Your task to perform on an android device: install app "Adobe Acrobat Reader: Edit PDF" Image 0: 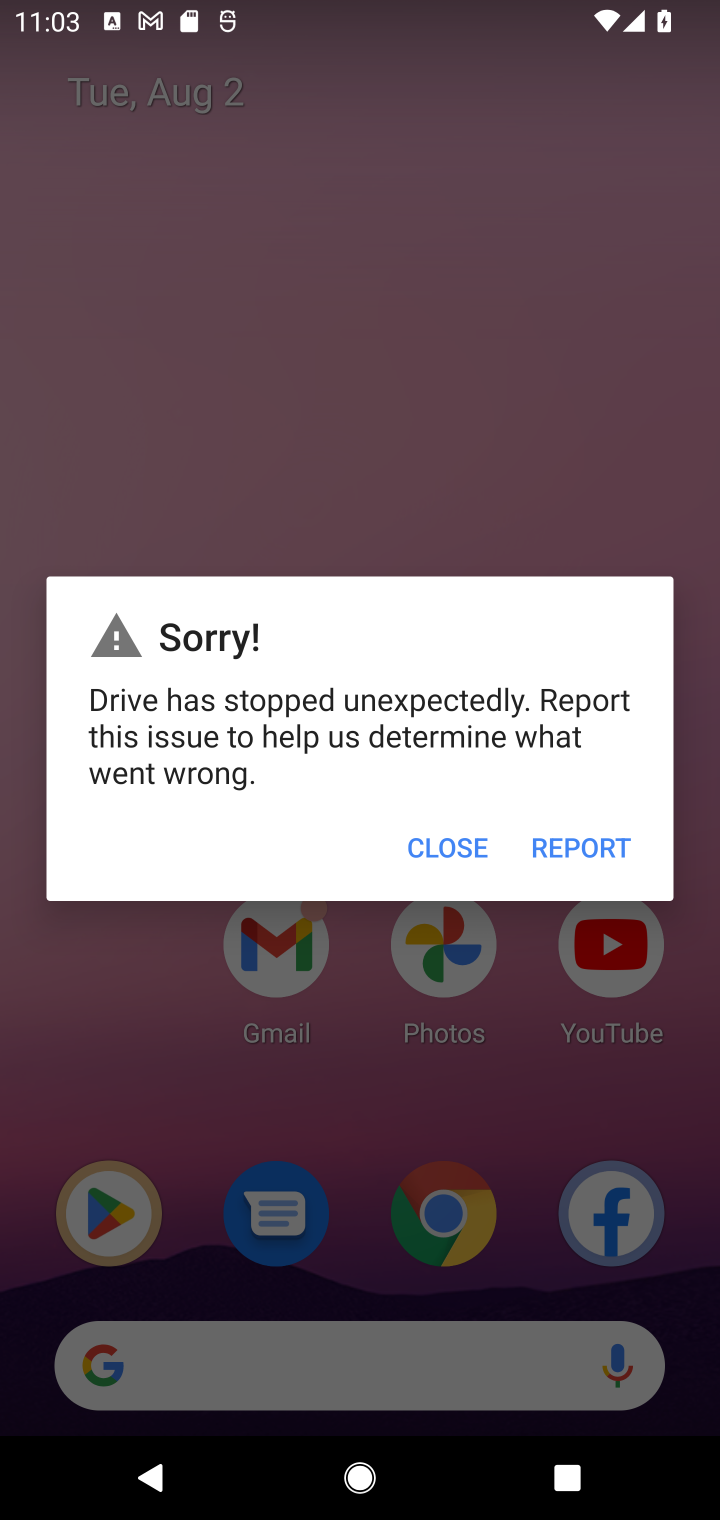
Step 0: press home button
Your task to perform on an android device: install app "Adobe Acrobat Reader: Edit PDF" Image 1: 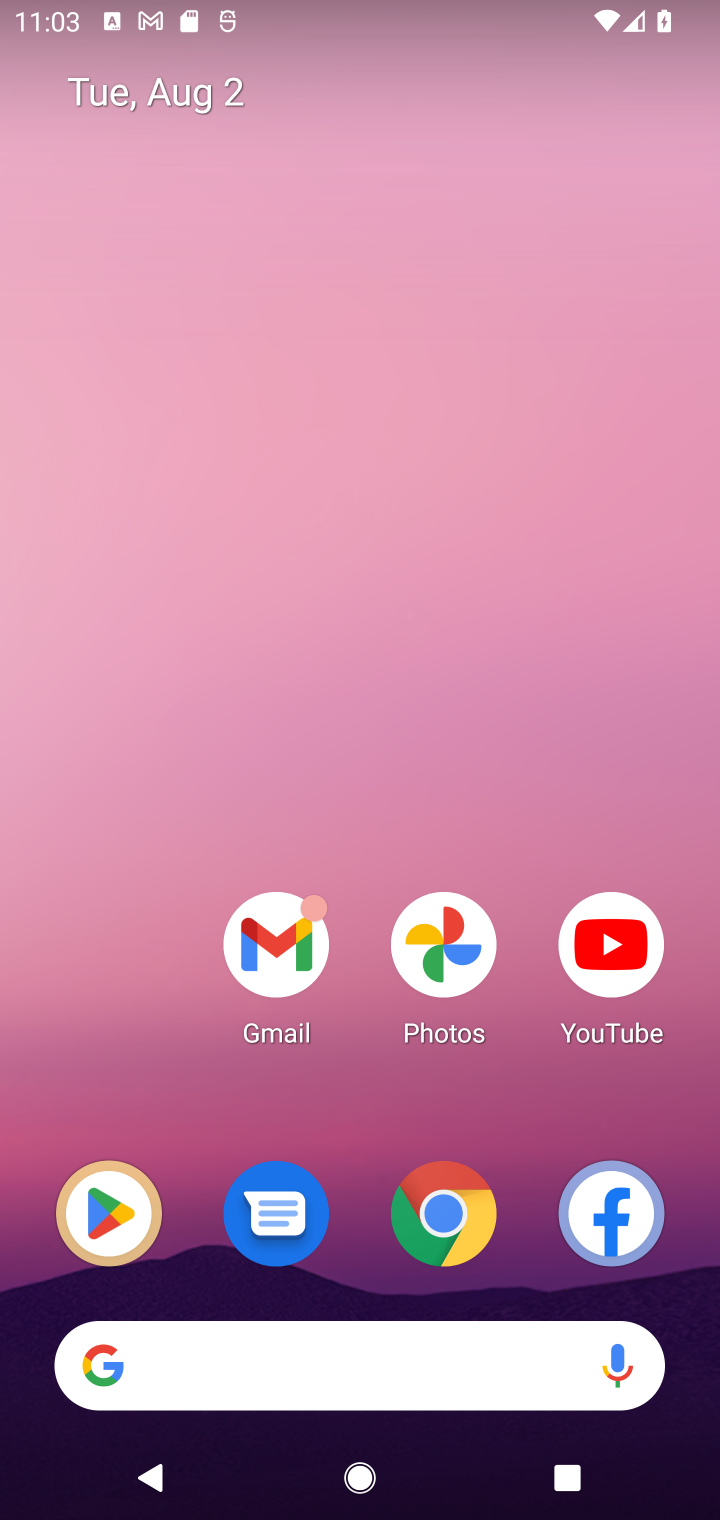
Step 1: click (427, 1151)
Your task to perform on an android device: install app "Adobe Acrobat Reader: Edit PDF" Image 2: 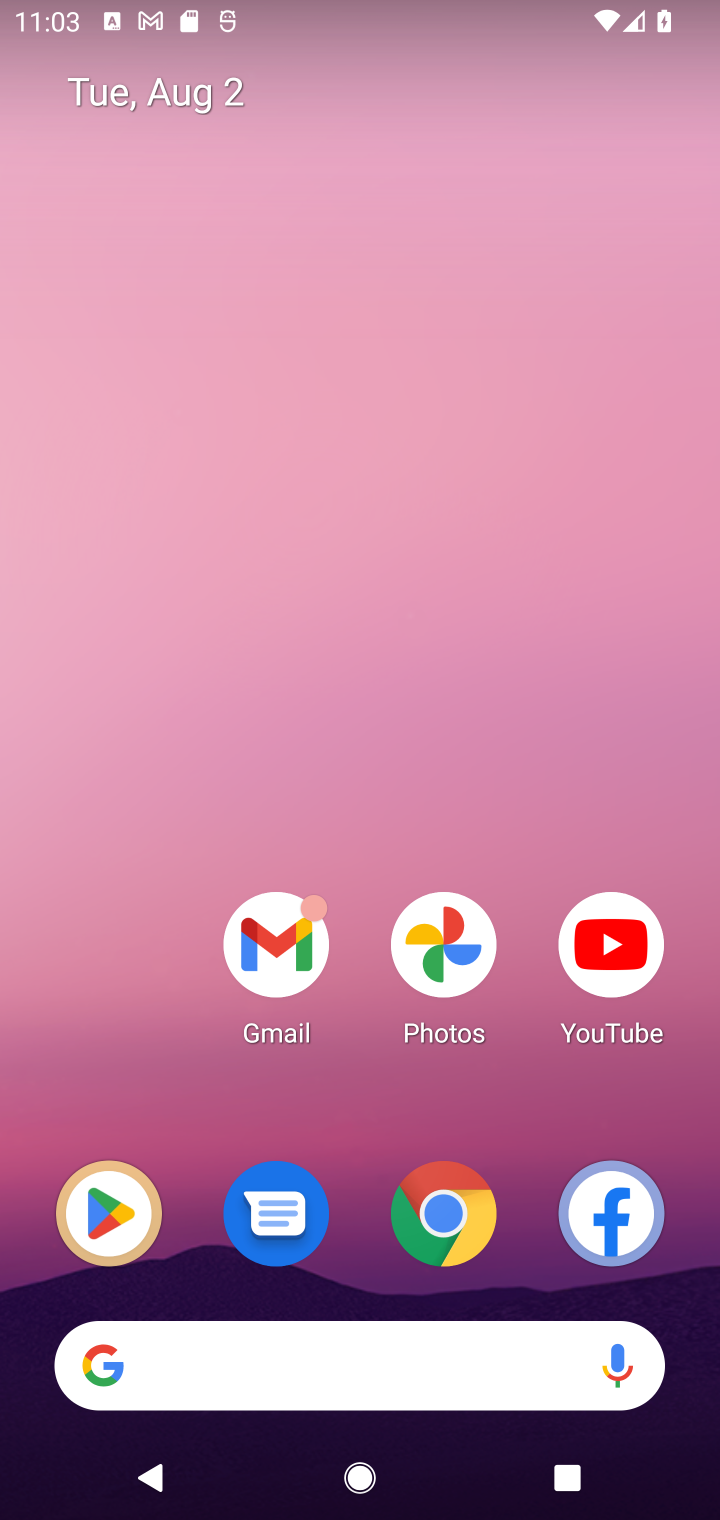
Step 2: click (104, 1216)
Your task to perform on an android device: install app "Adobe Acrobat Reader: Edit PDF" Image 3: 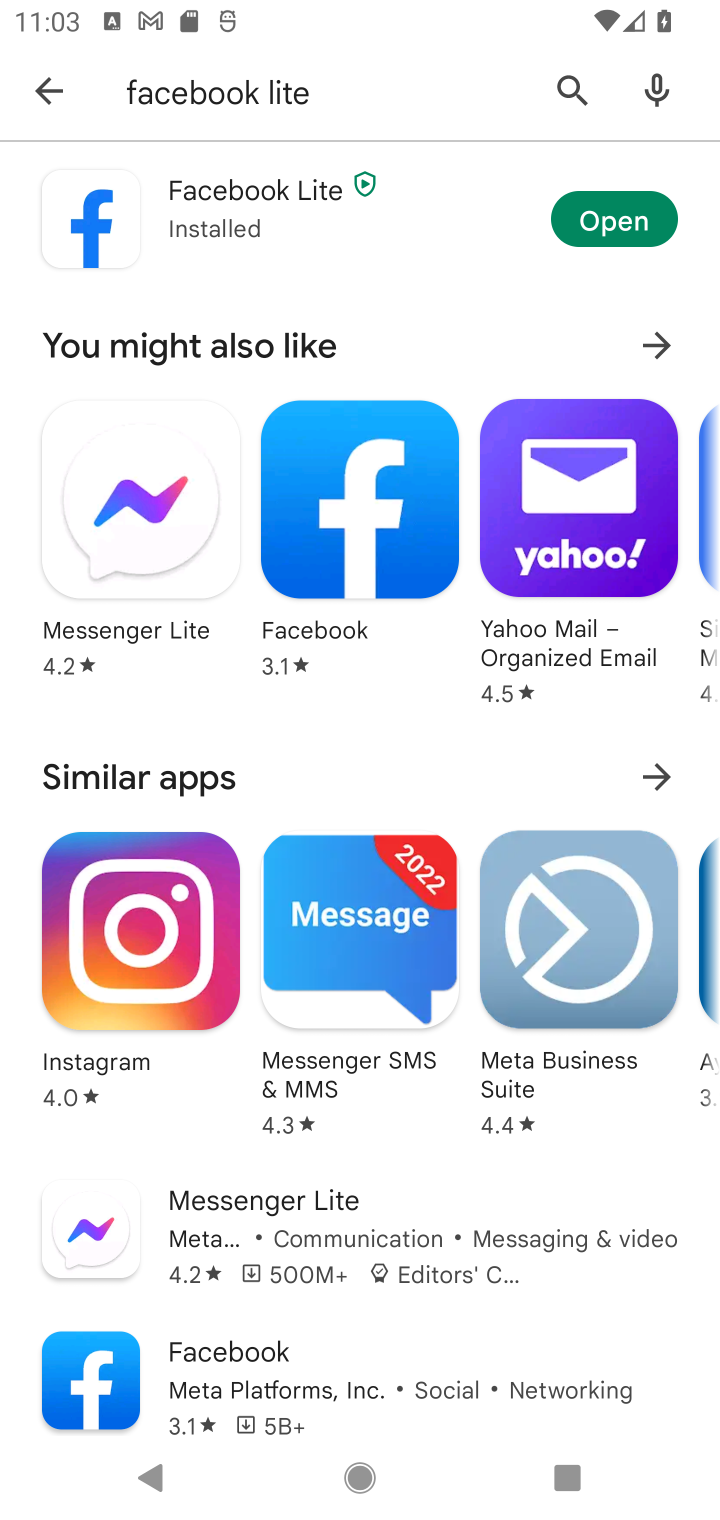
Step 3: click (46, 93)
Your task to perform on an android device: install app "Adobe Acrobat Reader: Edit PDF" Image 4: 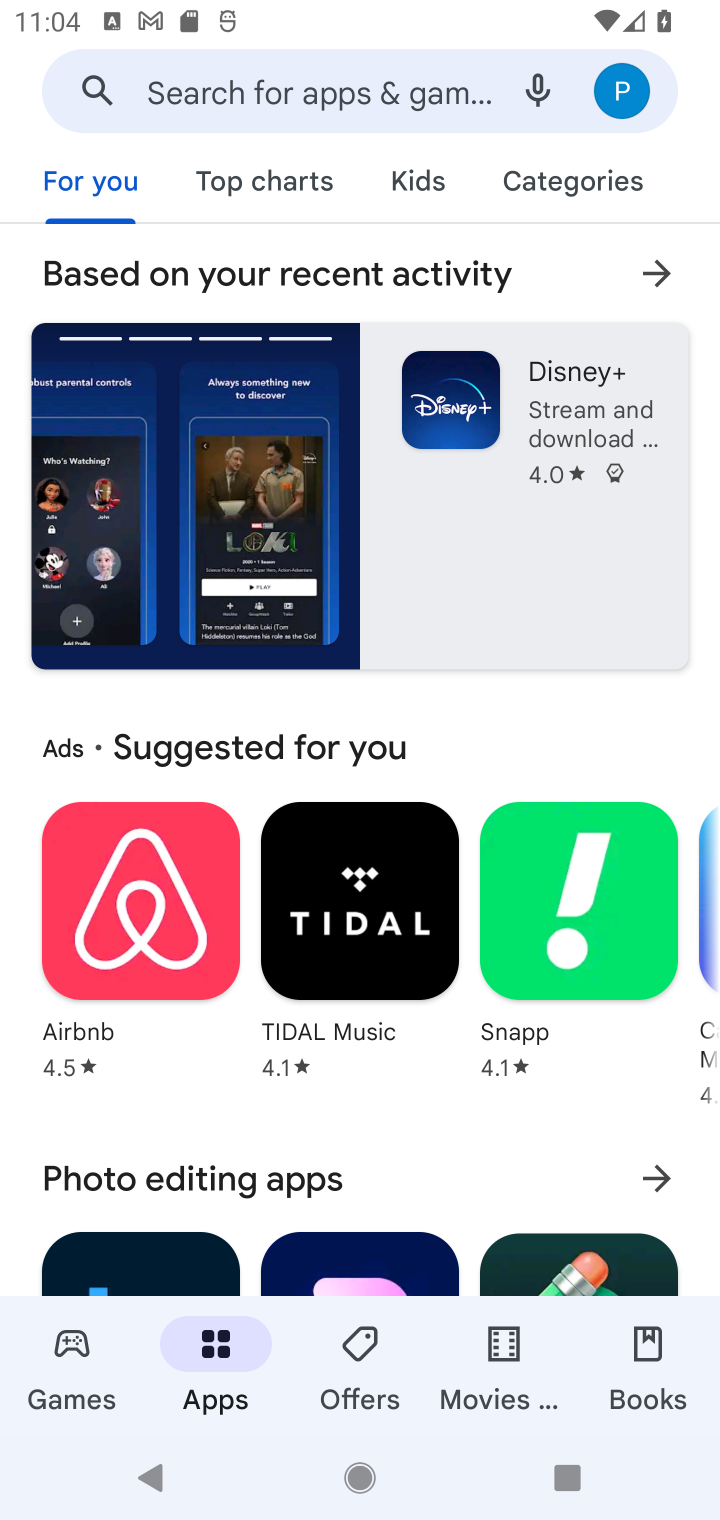
Step 4: click (271, 112)
Your task to perform on an android device: install app "Adobe Acrobat Reader: Edit PDF" Image 5: 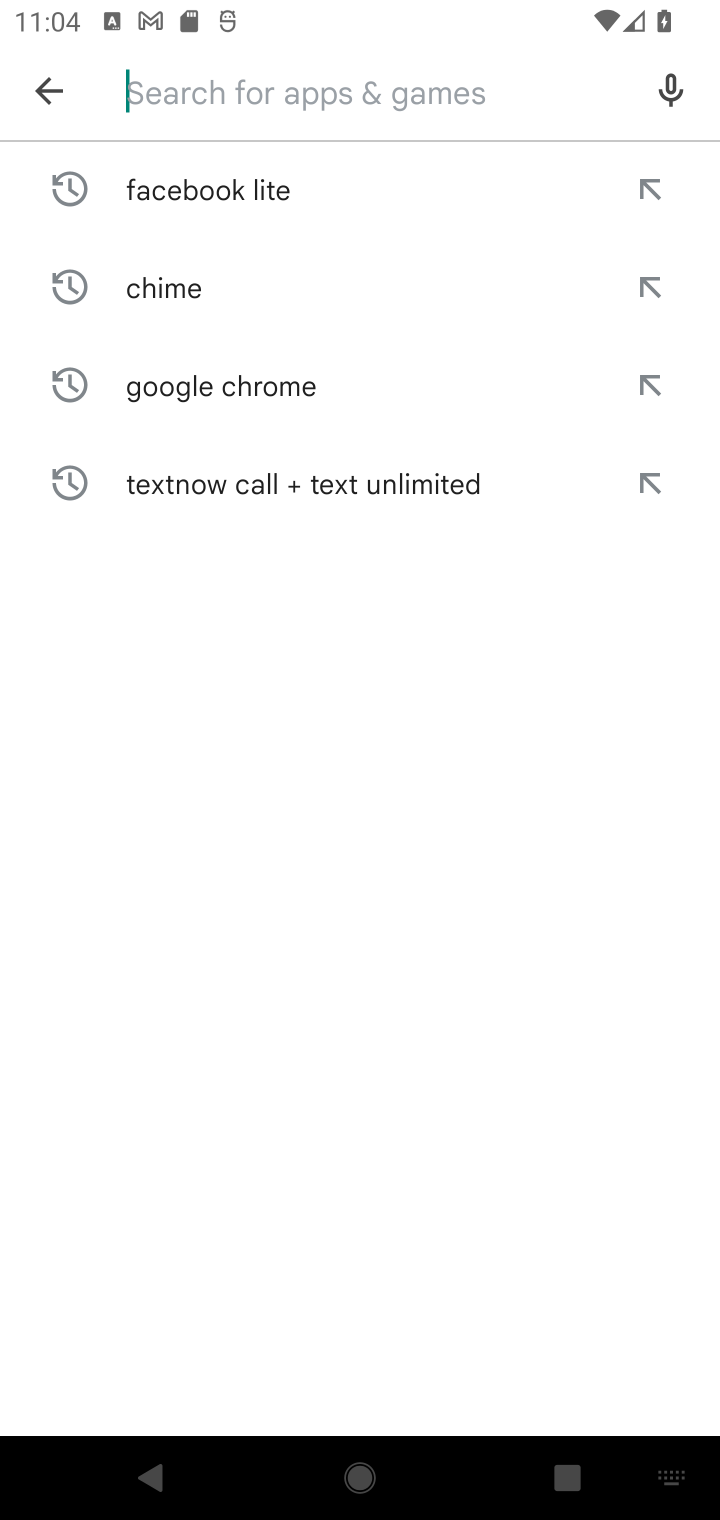
Step 5: type "Adobe Acrobat Reader: Edit PDF"
Your task to perform on an android device: install app "Adobe Acrobat Reader: Edit PDF" Image 6: 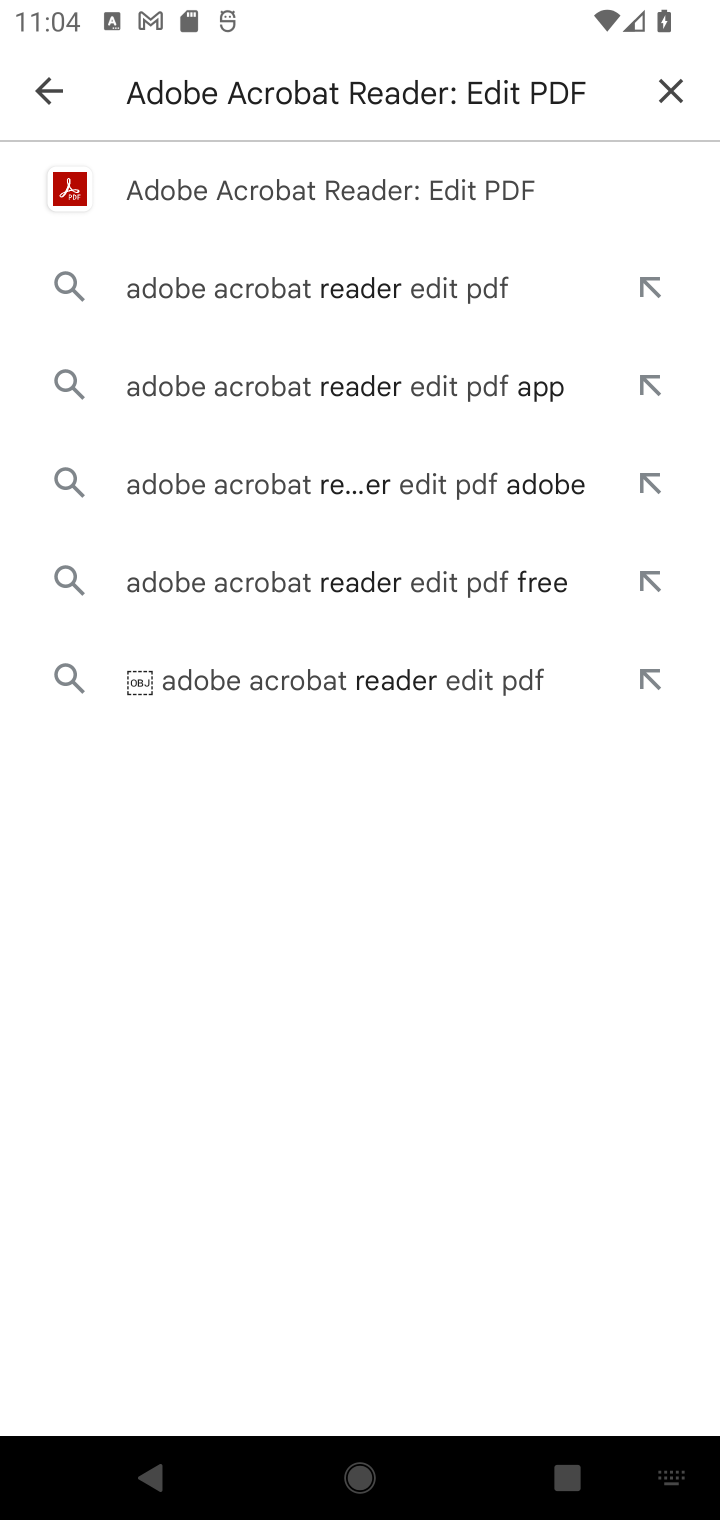
Step 6: click (280, 197)
Your task to perform on an android device: install app "Adobe Acrobat Reader: Edit PDF" Image 7: 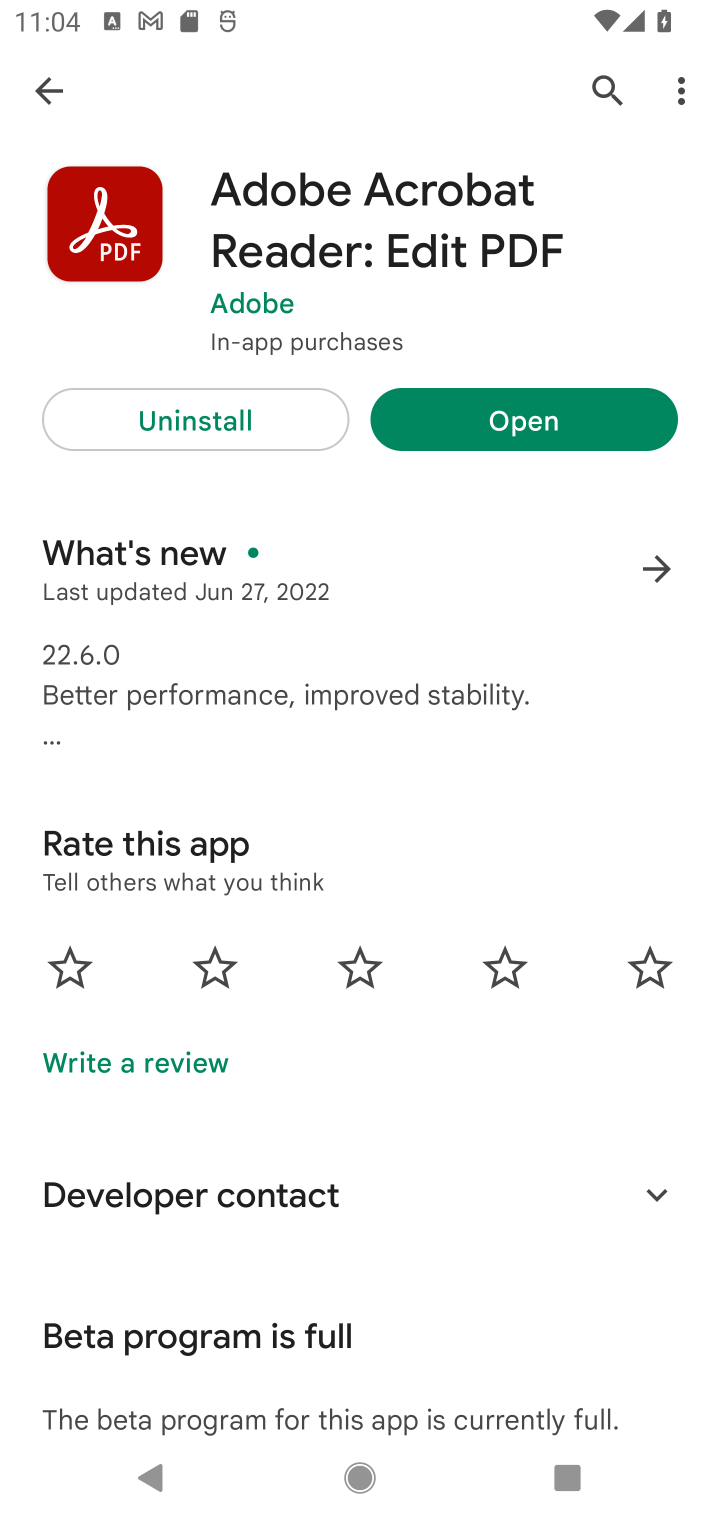
Step 7: click (489, 419)
Your task to perform on an android device: install app "Adobe Acrobat Reader: Edit PDF" Image 8: 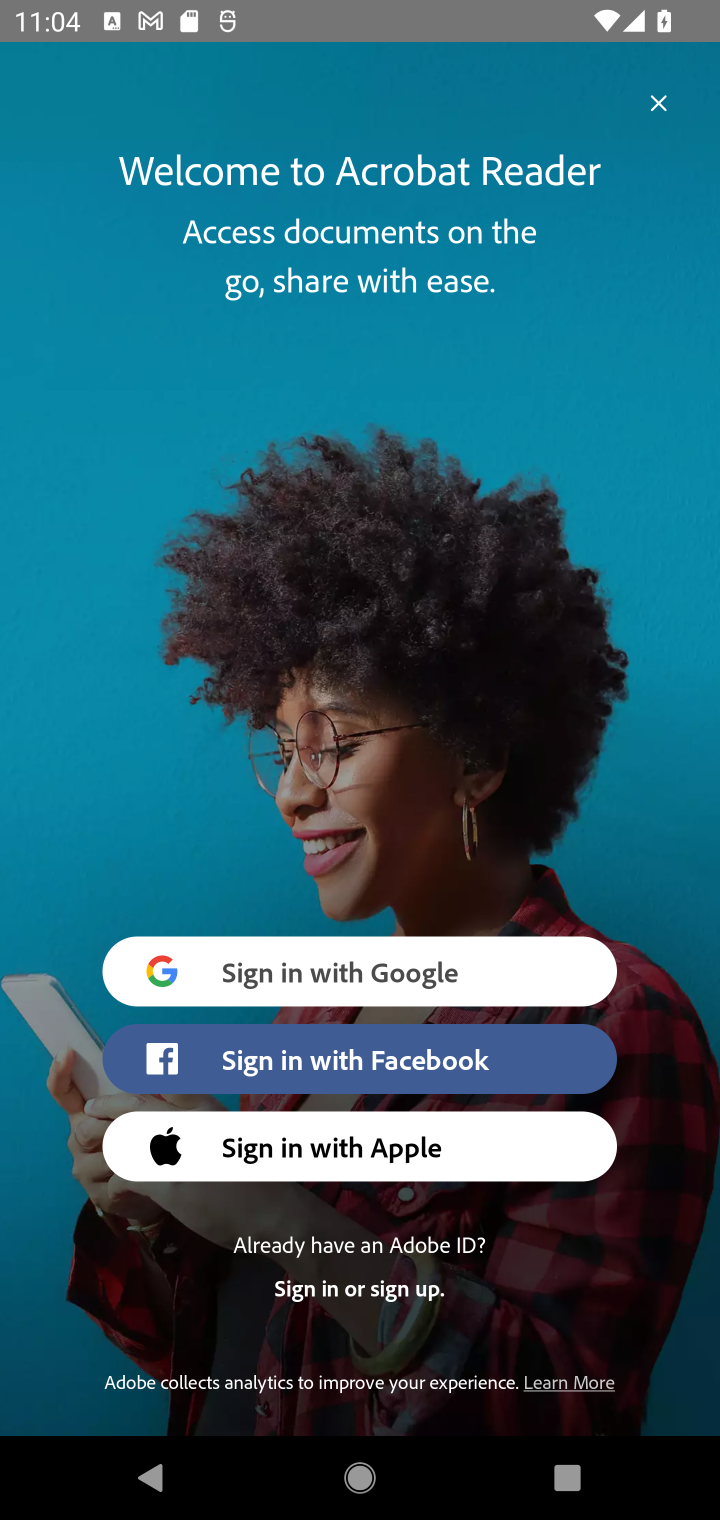
Step 8: task complete